Your task to perform on an android device: see sites visited before in the chrome app Image 0: 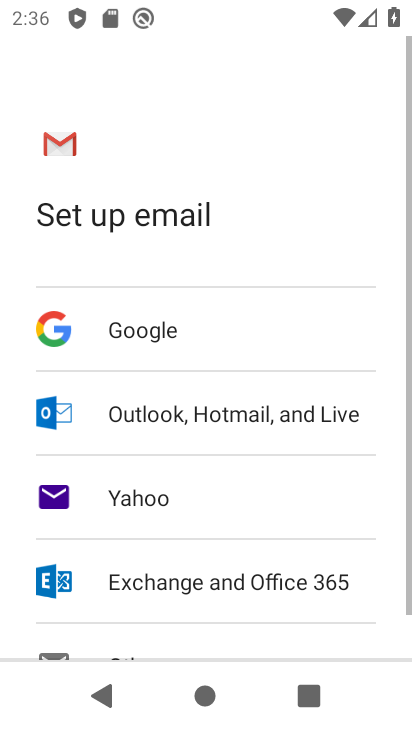
Step 0: press home button
Your task to perform on an android device: see sites visited before in the chrome app Image 1: 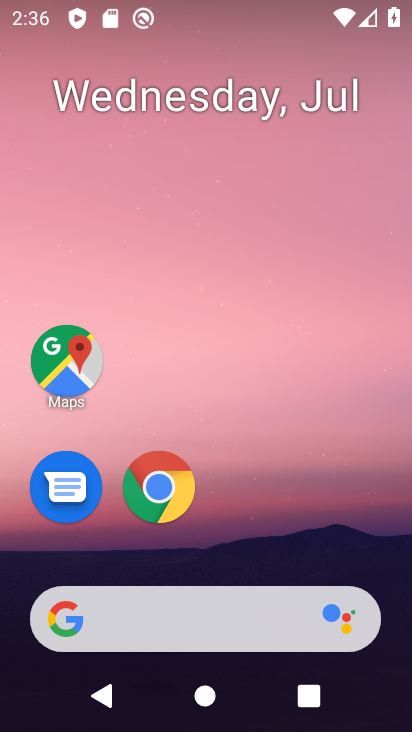
Step 1: click (169, 491)
Your task to perform on an android device: see sites visited before in the chrome app Image 2: 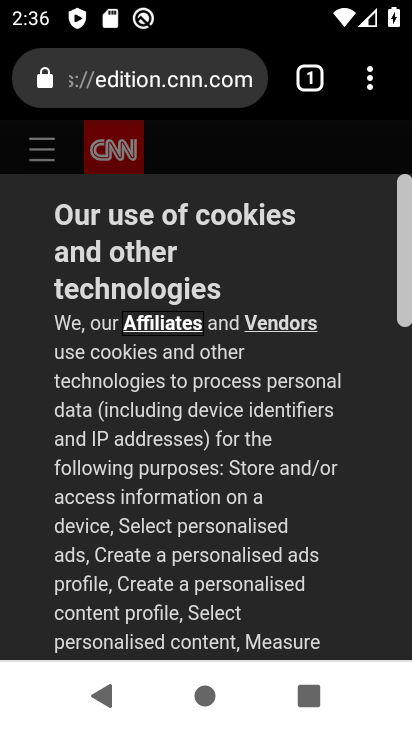
Step 2: click (371, 85)
Your task to perform on an android device: see sites visited before in the chrome app Image 3: 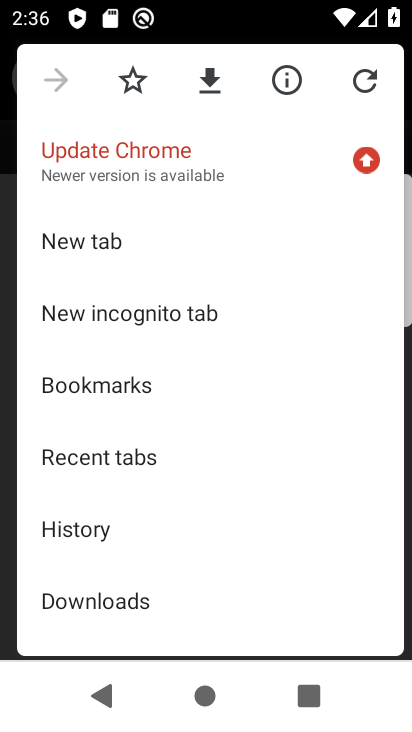
Step 3: click (111, 535)
Your task to perform on an android device: see sites visited before in the chrome app Image 4: 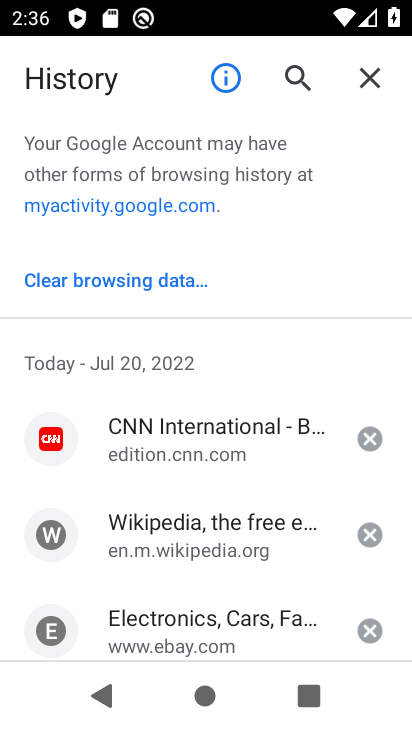
Step 4: task complete